Your task to perform on an android device: turn on javascript in the chrome app Image 0: 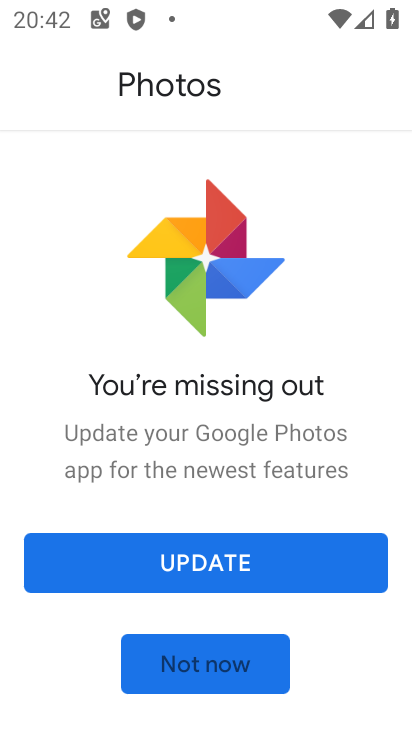
Step 0: press home button
Your task to perform on an android device: turn on javascript in the chrome app Image 1: 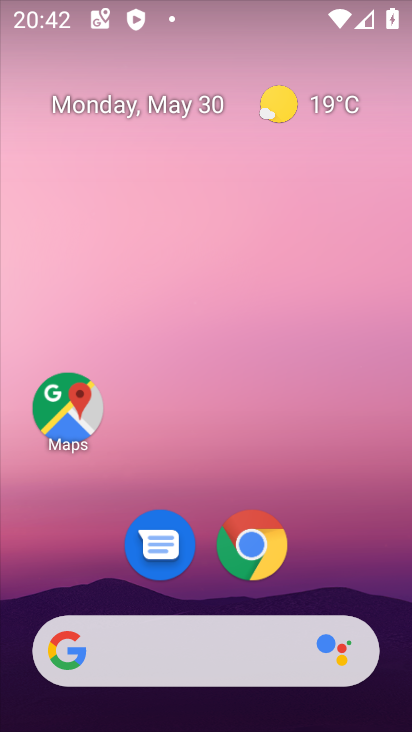
Step 1: click (249, 547)
Your task to perform on an android device: turn on javascript in the chrome app Image 2: 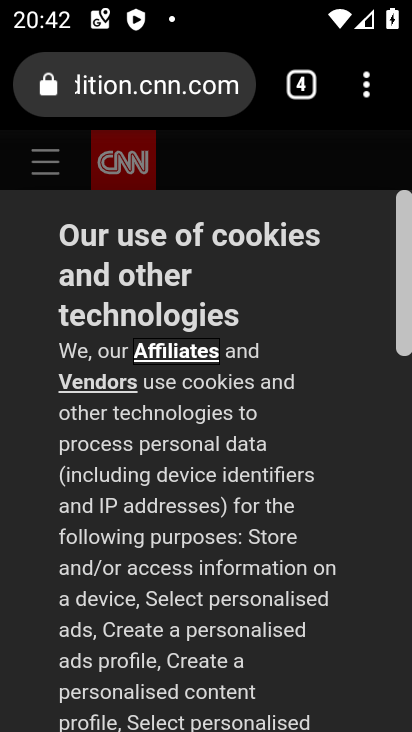
Step 2: click (365, 85)
Your task to perform on an android device: turn on javascript in the chrome app Image 3: 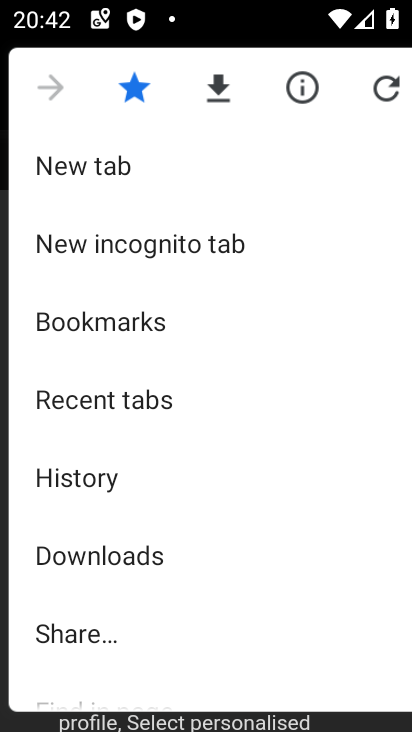
Step 3: drag from (187, 628) to (275, 205)
Your task to perform on an android device: turn on javascript in the chrome app Image 4: 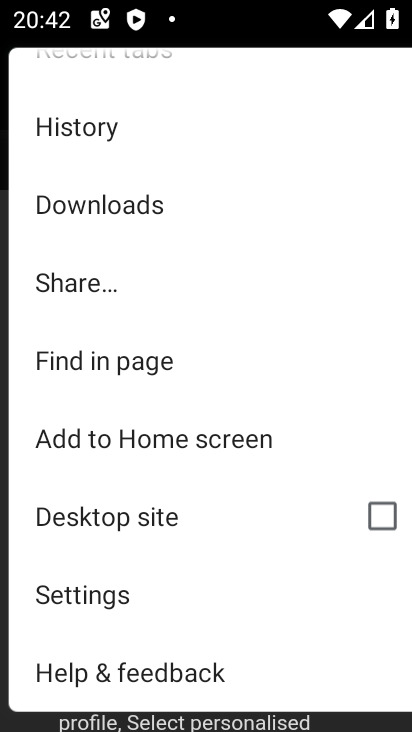
Step 4: click (106, 600)
Your task to perform on an android device: turn on javascript in the chrome app Image 5: 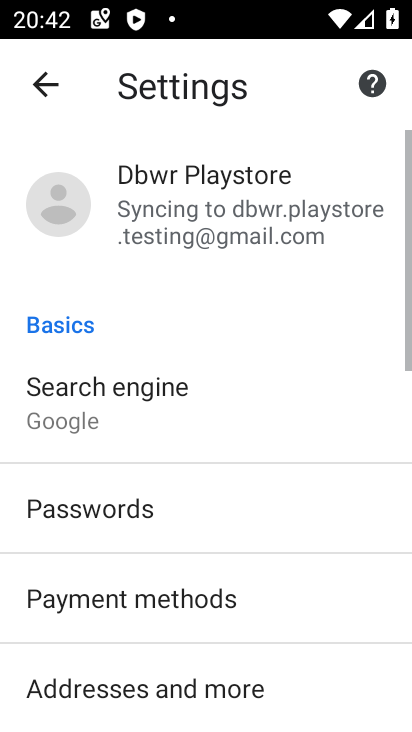
Step 5: drag from (230, 588) to (297, 168)
Your task to perform on an android device: turn on javascript in the chrome app Image 6: 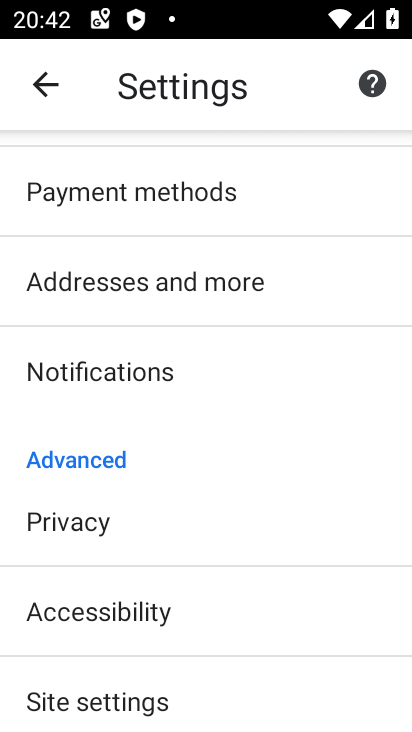
Step 6: click (123, 697)
Your task to perform on an android device: turn on javascript in the chrome app Image 7: 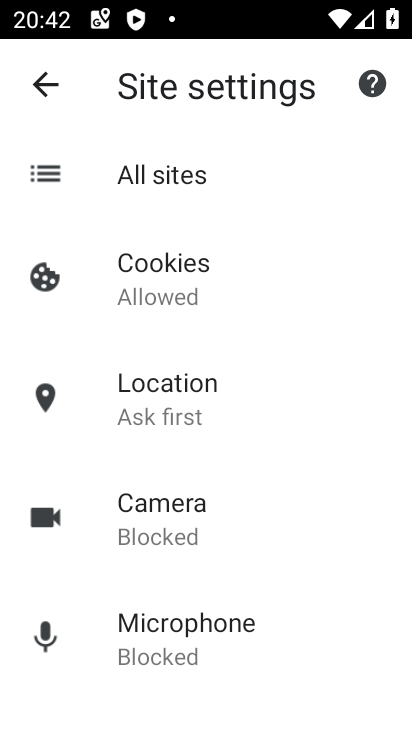
Step 7: drag from (263, 603) to (270, 200)
Your task to perform on an android device: turn on javascript in the chrome app Image 8: 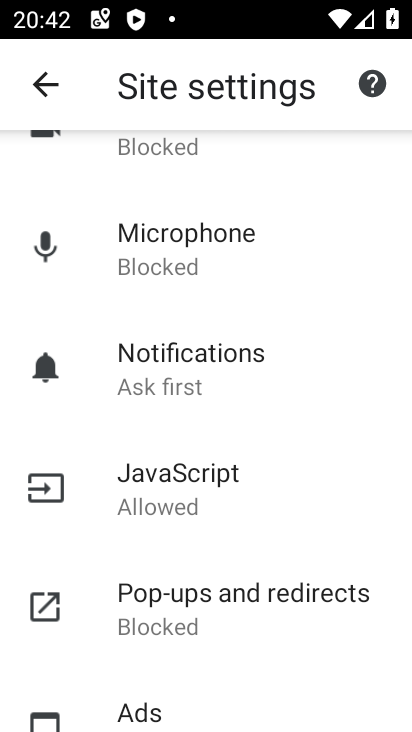
Step 8: click (161, 471)
Your task to perform on an android device: turn on javascript in the chrome app Image 9: 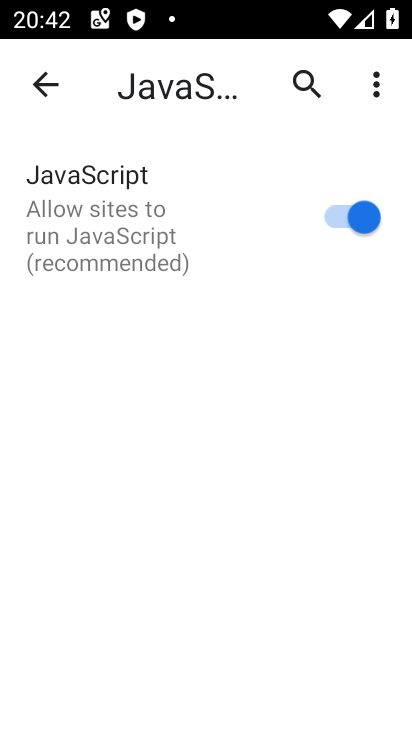
Step 9: task complete